Your task to perform on an android device: star an email in the gmail app Image 0: 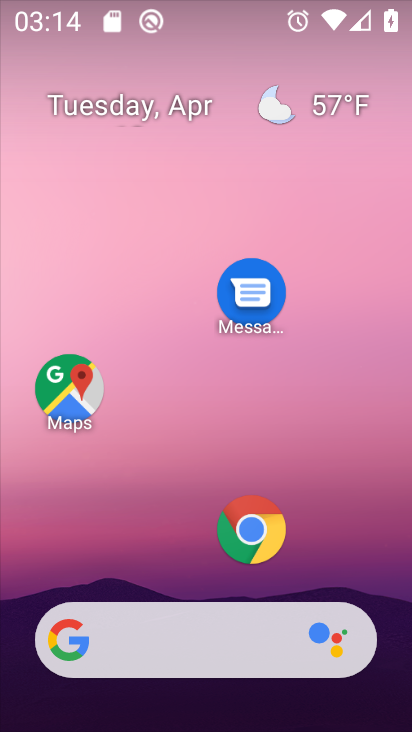
Step 0: click (166, 167)
Your task to perform on an android device: star an email in the gmail app Image 1: 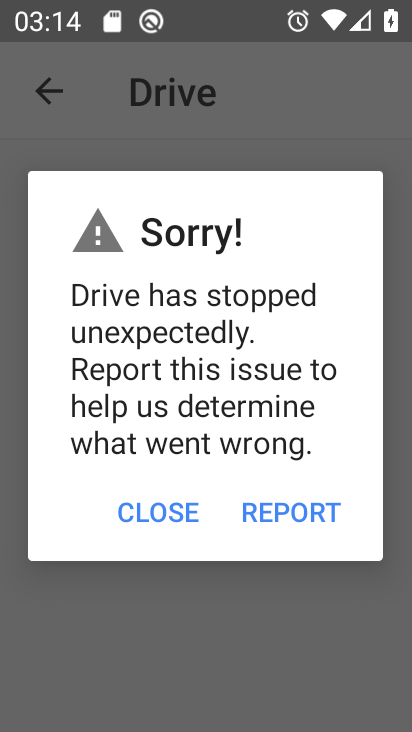
Step 1: press home button
Your task to perform on an android device: star an email in the gmail app Image 2: 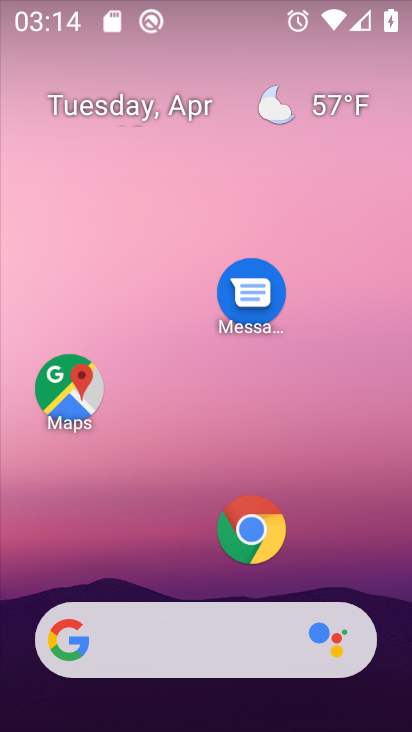
Step 2: drag from (180, 503) to (175, 197)
Your task to perform on an android device: star an email in the gmail app Image 3: 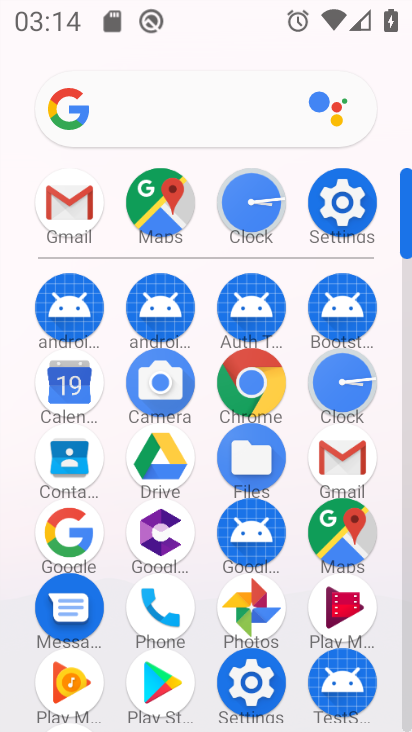
Step 3: click (71, 209)
Your task to perform on an android device: star an email in the gmail app Image 4: 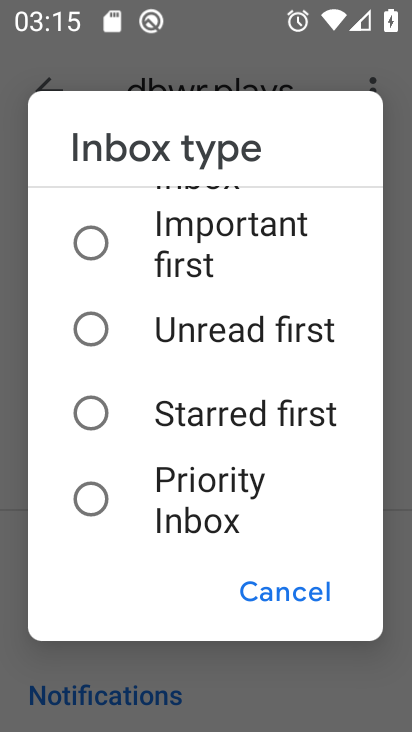
Step 4: press back button
Your task to perform on an android device: star an email in the gmail app Image 5: 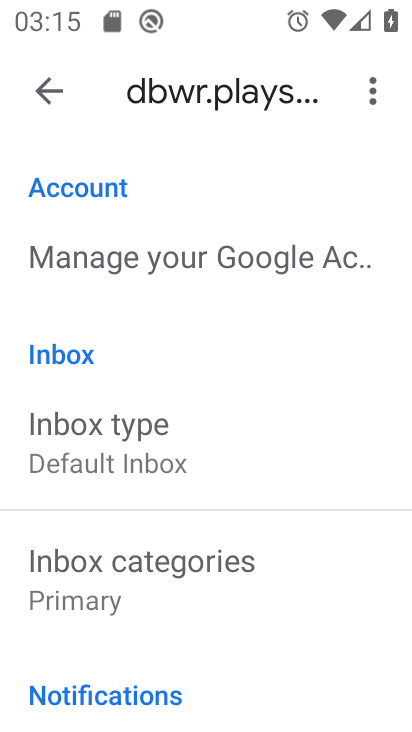
Step 5: press back button
Your task to perform on an android device: star an email in the gmail app Image 6: 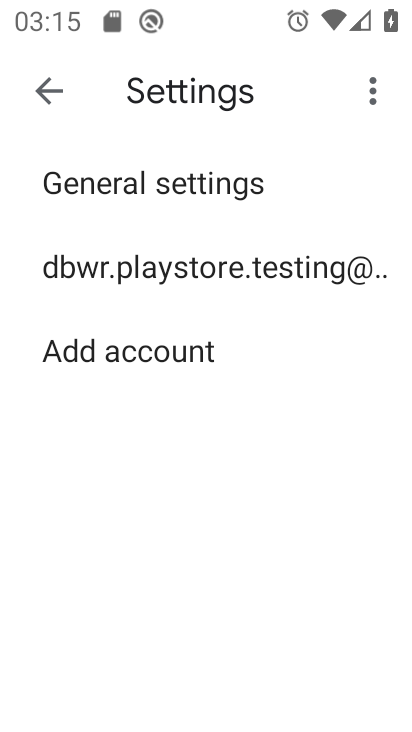
Step 6: press back button
Your task to perform on an android device: star an email in the gmail app Image 7: 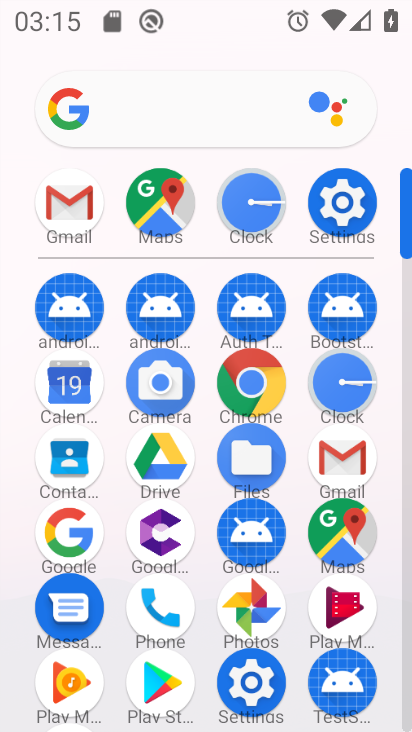
Step 7: click (74, 198)
Your task to perform on an android device: star an email in the gmail app Image 8: 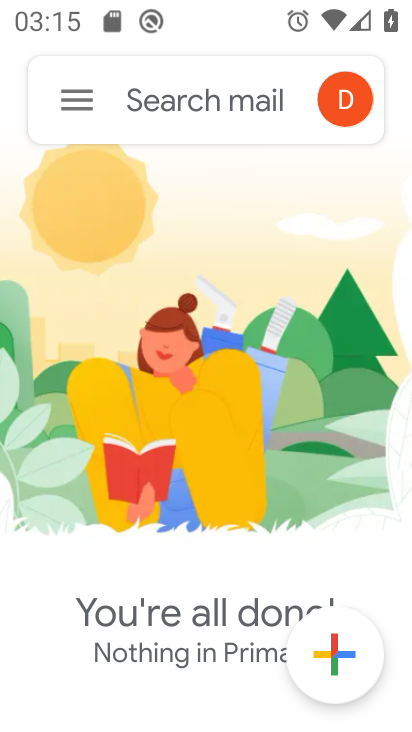
Step 8: click (84, 105)
Your task to perform on an android device: star an email in the gmail app Image 9: 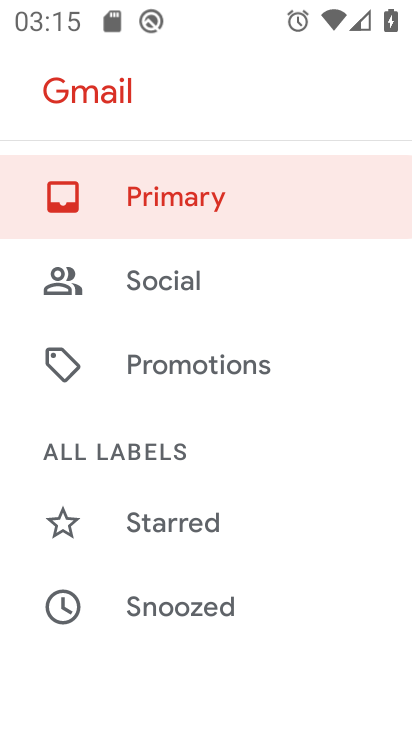
Step 9: drag from (195, 544) to (219, 72)
Your task to perform on an android device: star an email in the gmail app Image 10: 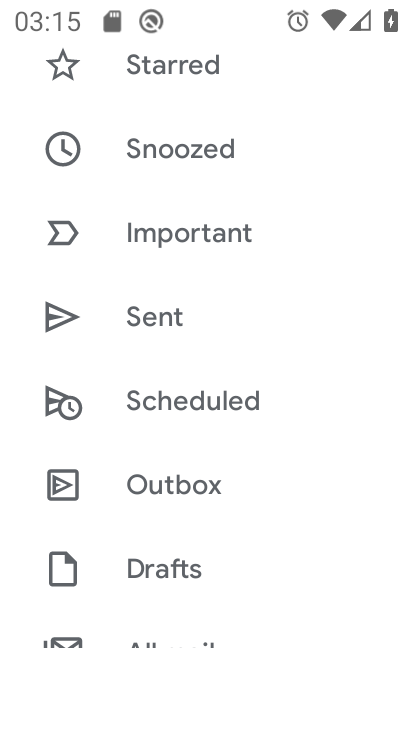
Step 10: drag from (178, 537) to (187, 307)
Your task to perform on an android device: star an email in the gmail app Image 11: 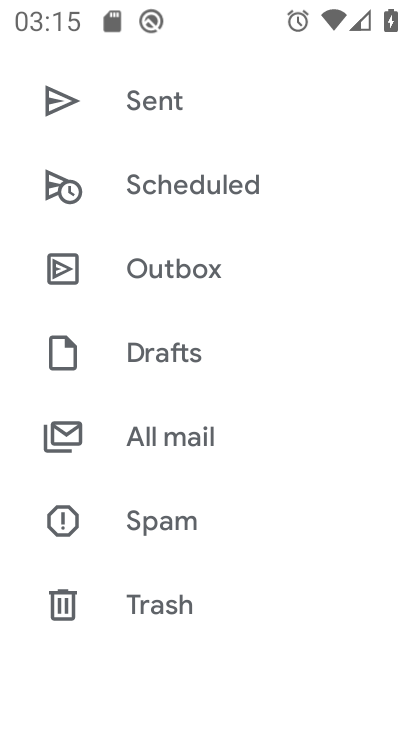
Step 11: click (150, 429)
Your task to perform on an android device: star an email in the gmail app Image 12: 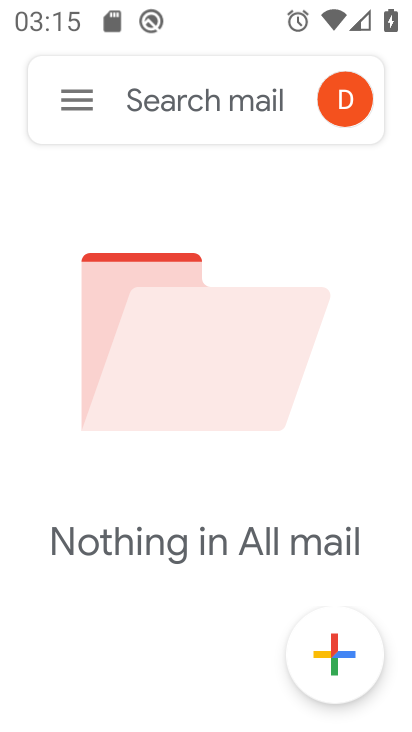
Step 12: task complete